Your task to perform on an android device: change the clock display to digital Image 0: 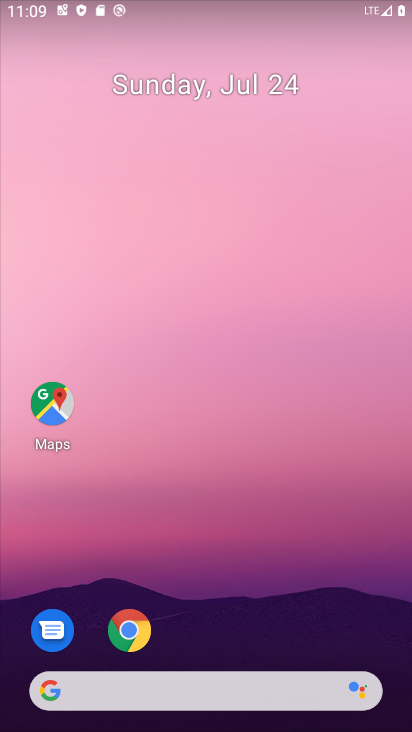
Step 0: drag from (201, 628) to (219, 87)
Your task to perform on an android device: change the clock display to digital Image 1: 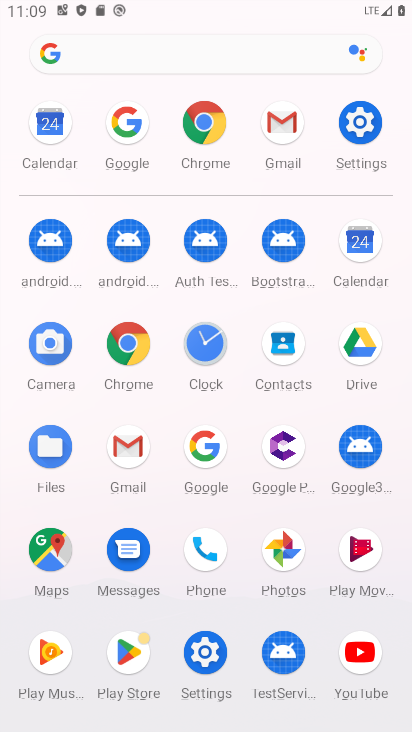
Step 1: click (197, 334)
Your task to perform on an android device: change the clock display to digital Image 2: 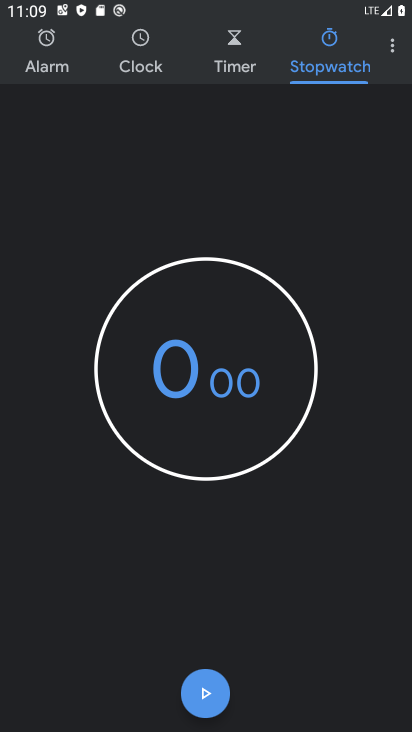
Step 2: click (390, 59)
Your task to perform on an android device: change the clock display to digital Image 3: 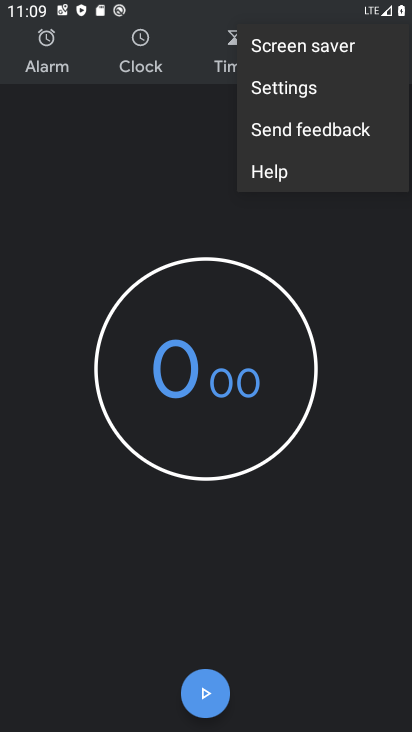
Step 3: click (375, 88)
Your task to perform on an android device: change the clock display to digital Image 4: 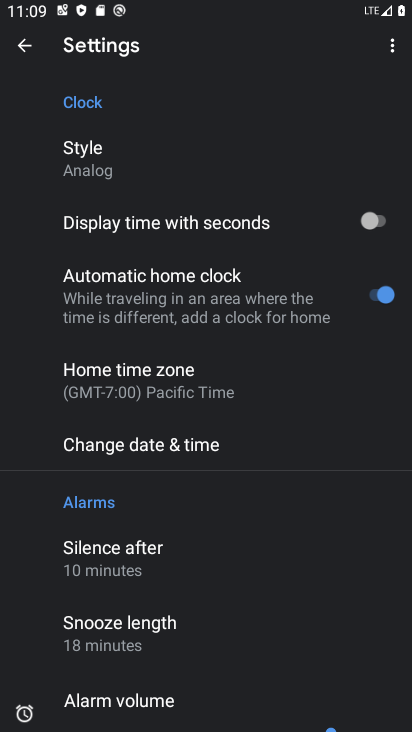
Step 4: click (143, 162)
Your task to perform on an android device: change the clock display to digital Image 5: 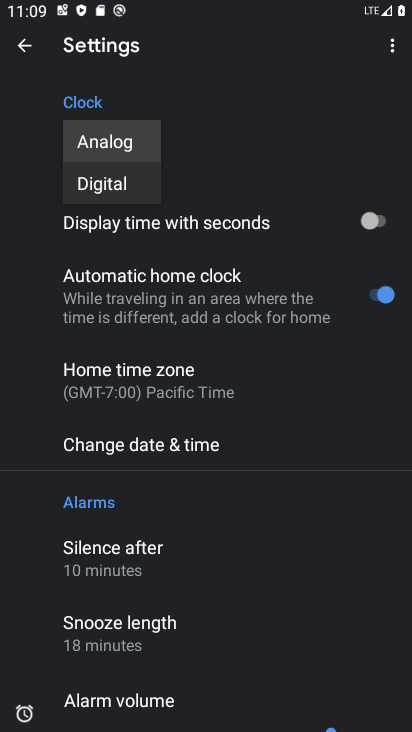
Step 5: click (125, 194)
Your task to perform on an android device: change the clock display to digital Image 6: 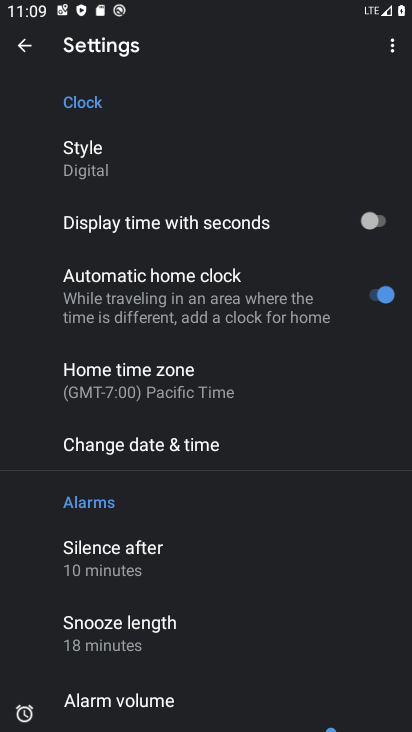
Step 6: task complete